Your task to perform on an android device: toggle sleep mode Image 0: 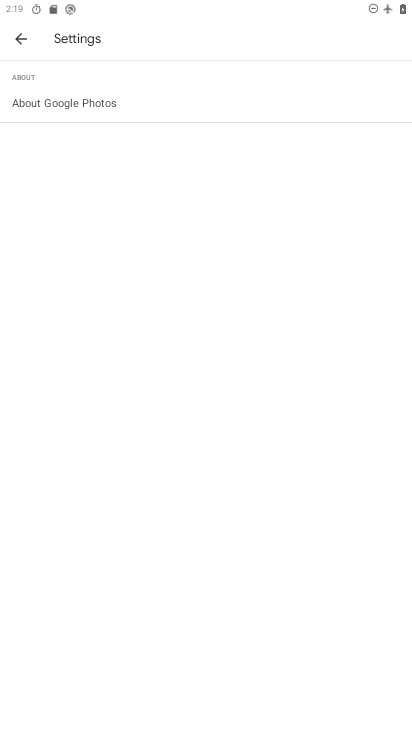
Step 0: press home button
Your task to perform on an android device: toggle sleep mode Image 1: 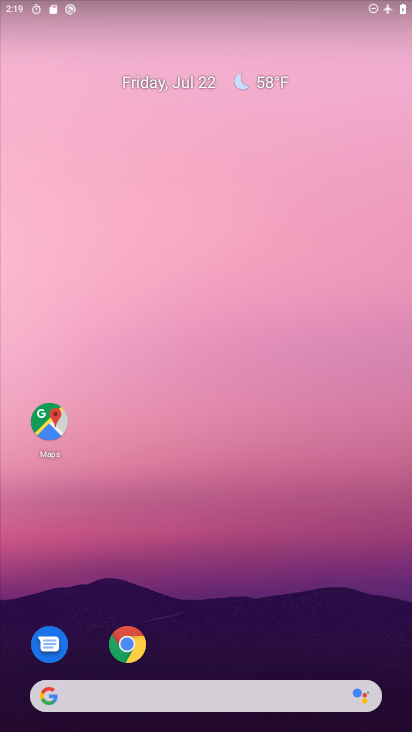
Step 1: drag from (218, 641) to (250, 170)
Your task to perform on an android device: toggle sleep mode Image 2: 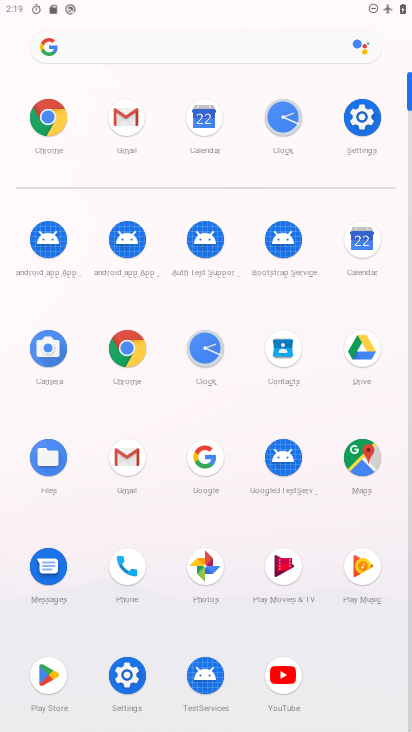
Step 2: click (370, 121)
Your task to perform on an android device: toggle sleep mode Image 3: 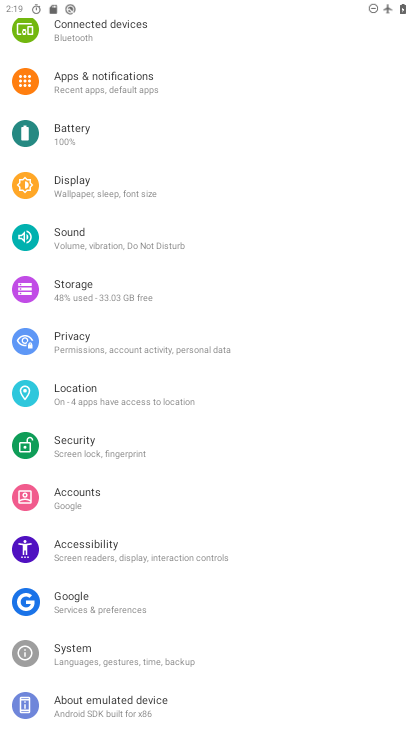
Step 3: click (93, 196)
Your task to perform on an android device: toggle sleep mode Image 4: 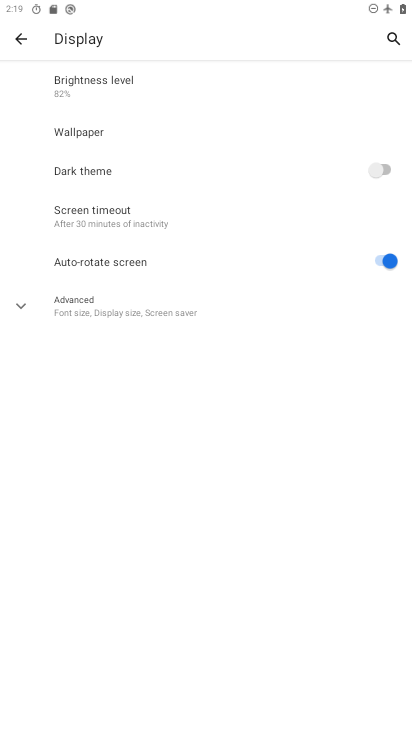
Step 4: click (126, 215)
Your task to perform on an android device: toggle sleep mode Image 5: 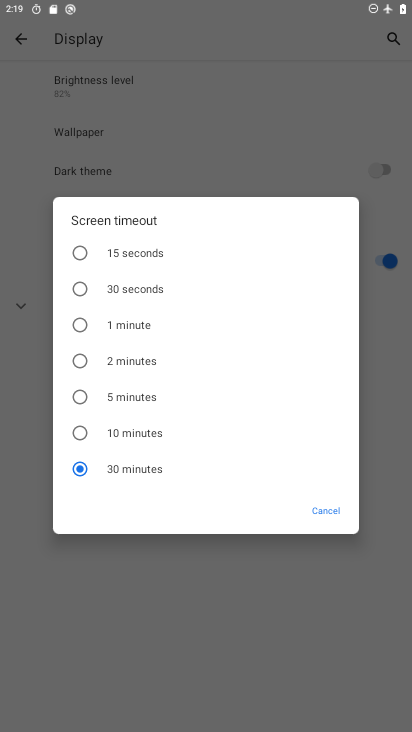
Step 5: click (112, 370)
Your task to perform on an android device: toggle sleep mode Image 6: 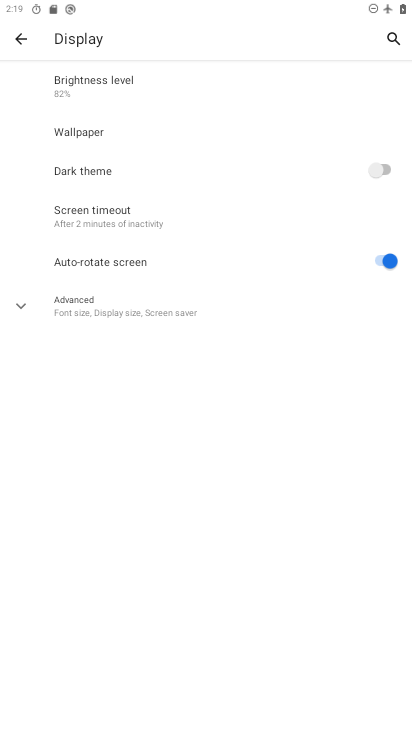
Step 6: task complete